Your task to perform on an android device: check storage Image 0: 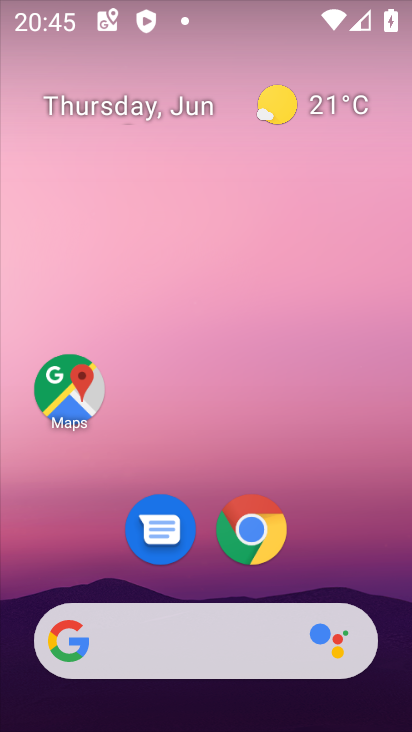
Step 0: drag from (344, 502) to (224, 60)
Your task to perform on an android device: check storage Image 1: 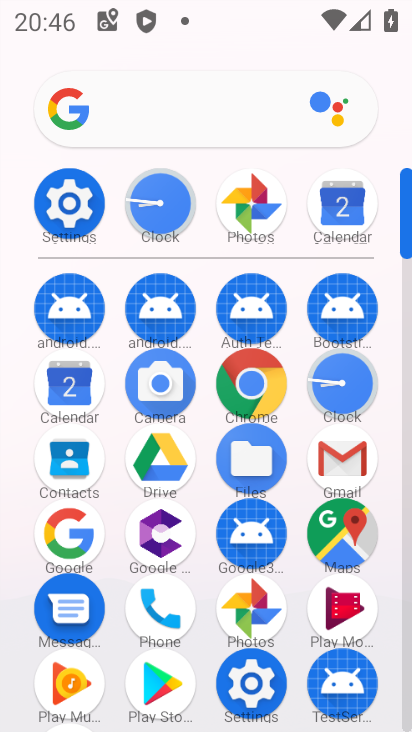
Step 1: click (69, 204)
Your task to perform on an android device: check storage Image 2: 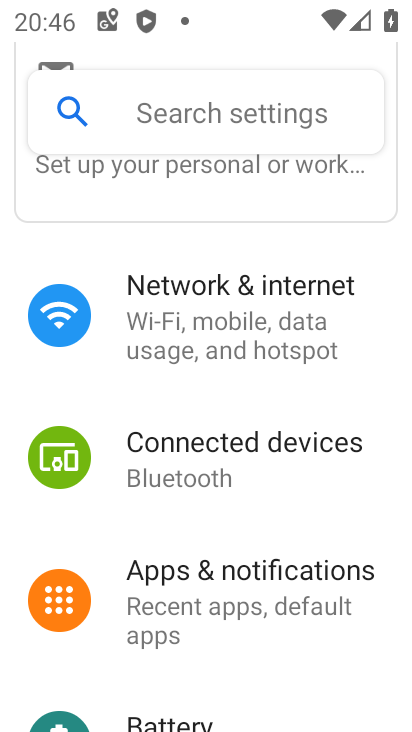
Step 2: drag from (260, 686) to (221, 425)
Your task to perform on an android device: check storage Image 3: 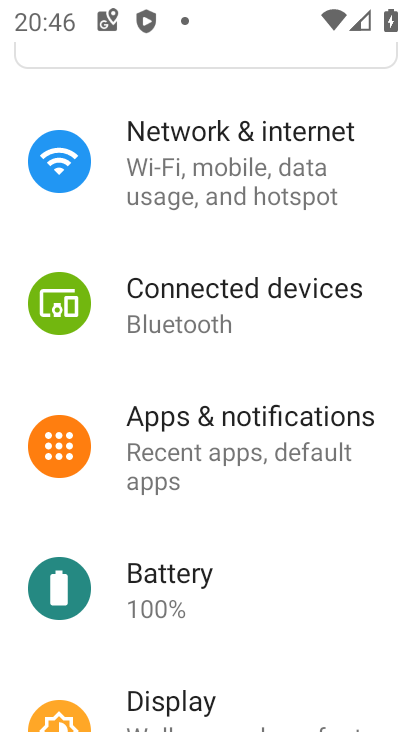
Step 3: drag from (227, 628) to (225, 267)
Your task to perform on an android device: check storage Image 4: 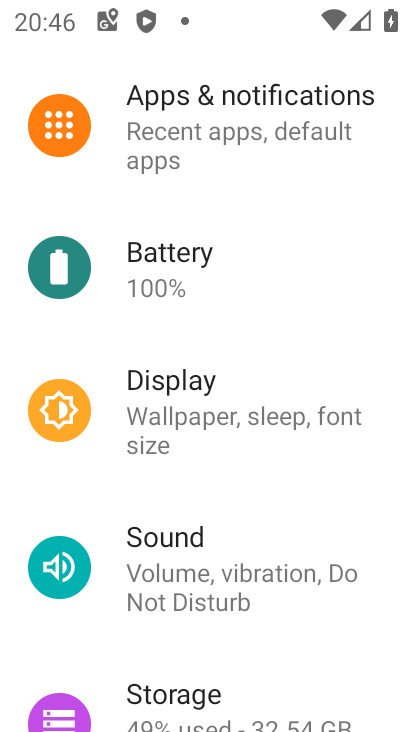
Step 4: click (158, 693)
Your task to perform on an android device: check storage Image 5: 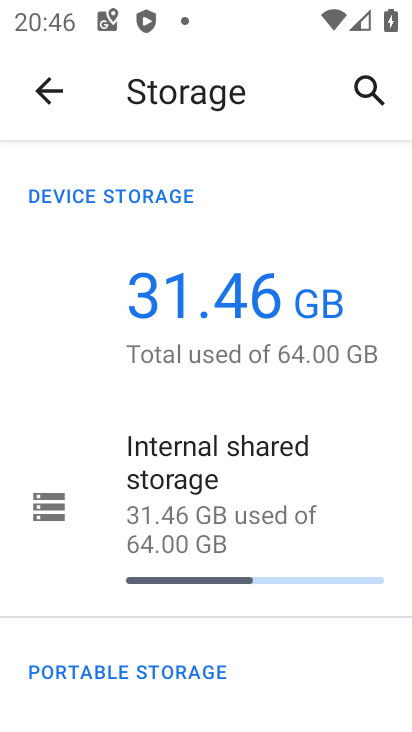
Step 5: task complete